Your task to perform on an android device: change the clock display to digital Image 0: 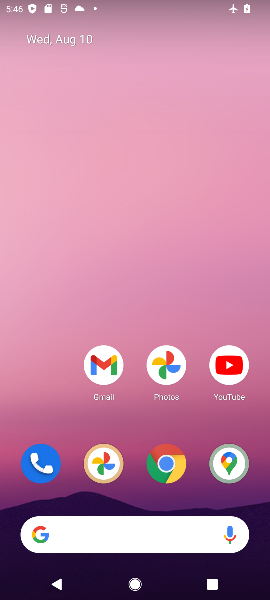
Step 0: drag from (139, 497) to (116, 110)
Your task to perform on an android device: change the clock display to digital Image 1: 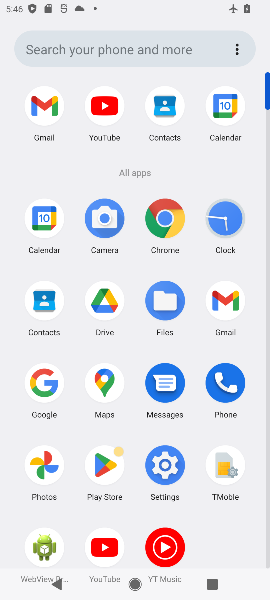
Step 1: click (225, 211)
Your task to perform on an android device: change the clock display to digital Image 2: 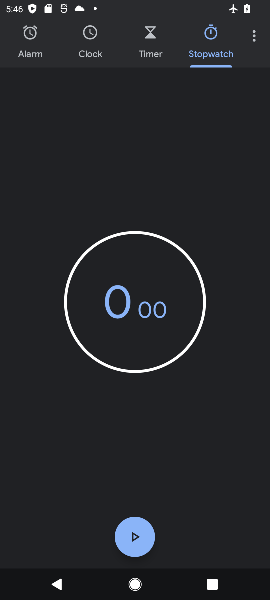
Step 2: click (255, 33)
Your task to perform on an android device: change the clock display to digital Image 3: 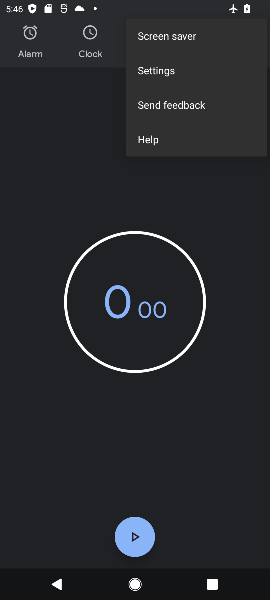
Step 3: click (166, 66)
Your task to perform on an android device: change the clock display to digital Image 4: 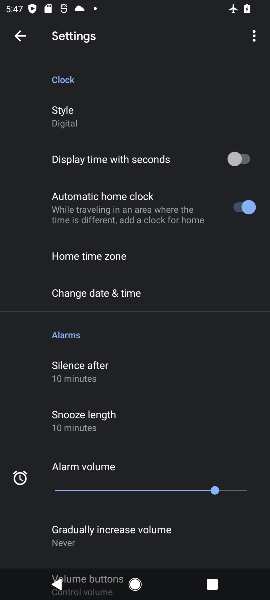
Step 4: click (71, 104)
Your task to perform on an android device: change the clock display to digital Image 5: 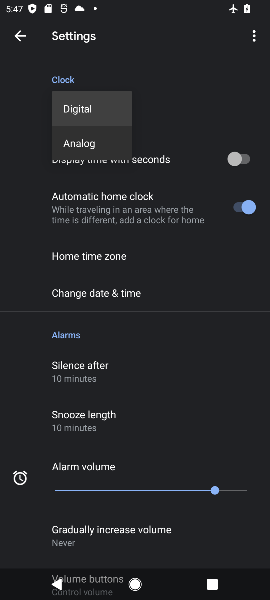
Step 5: click (94, 106)
Your task to perform on an android device: change the clock display to digital Image 6: 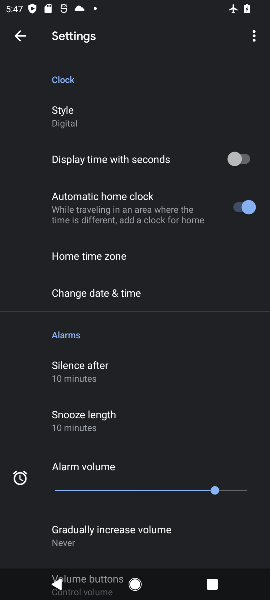
Step 6: task complete